Your task to perform on an android device: check battery use Image 0: 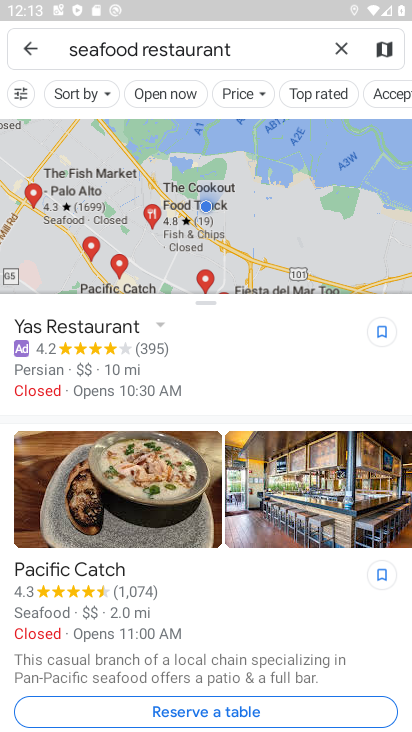
Step 0: press home button
Your task to perform on an android device: check battery use Image 1: 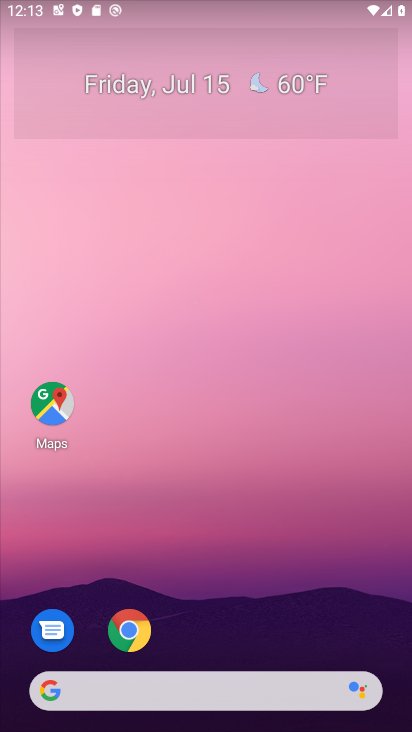
Step 1: drag from (55, 685) to (195, 310)
Your task to perform on an android device: check battery use Image 2: 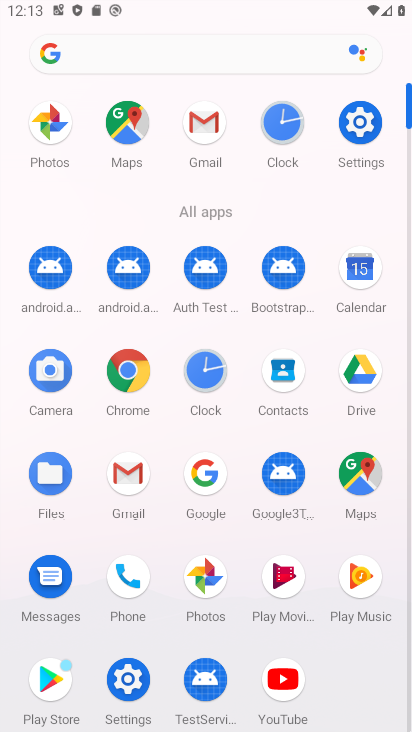
Step 2: click (117, 674)
Your task to perform on an android device: check battery use Image 3: 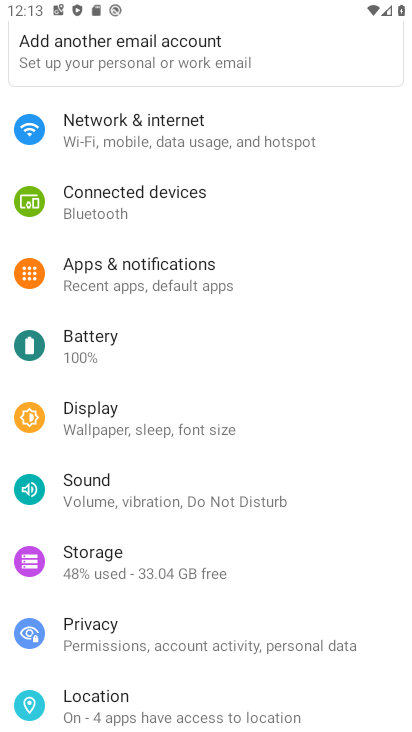
Step 3: click (151, 365)
Your task to perform on an android device: check battery use Image 4: 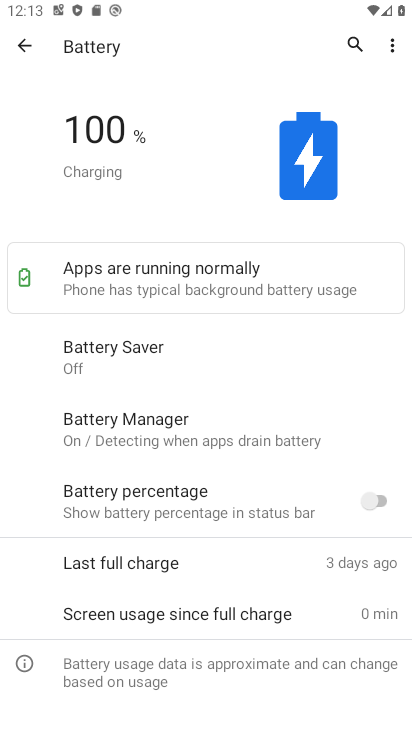
Step 4: task complete